Your task to perform on an android device: Clear all items from cart on amazon.com. Search for "beats solo 3" on amazon.com, select the first entry, and add it to the cart. Image 0: 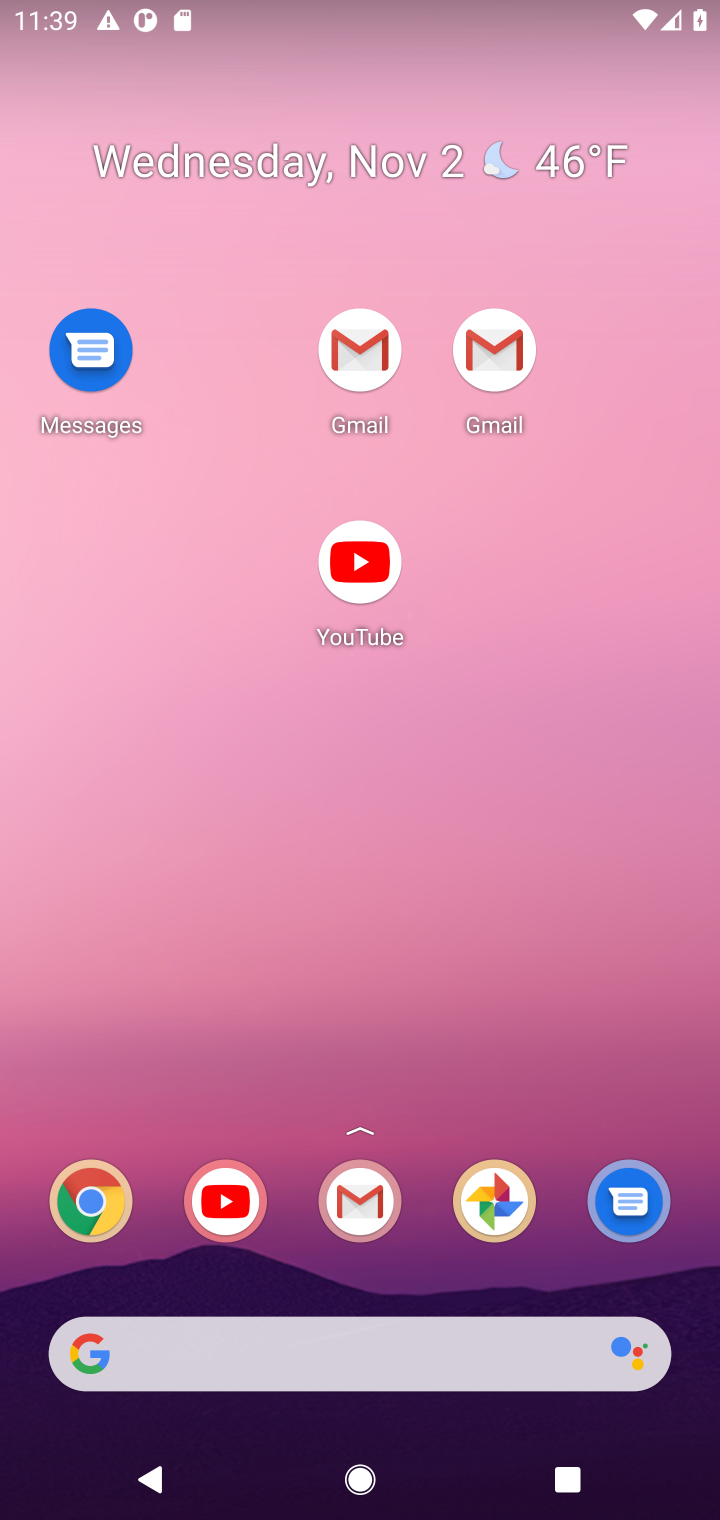
Step 0: drag from (437, 1266) to (437, 201)
Your task to perform on an android device: Clear all items from cart on amazon.com. Search for "beats solo 3" on amazon.com, select the first entry, and add it to the cart. Image 1: 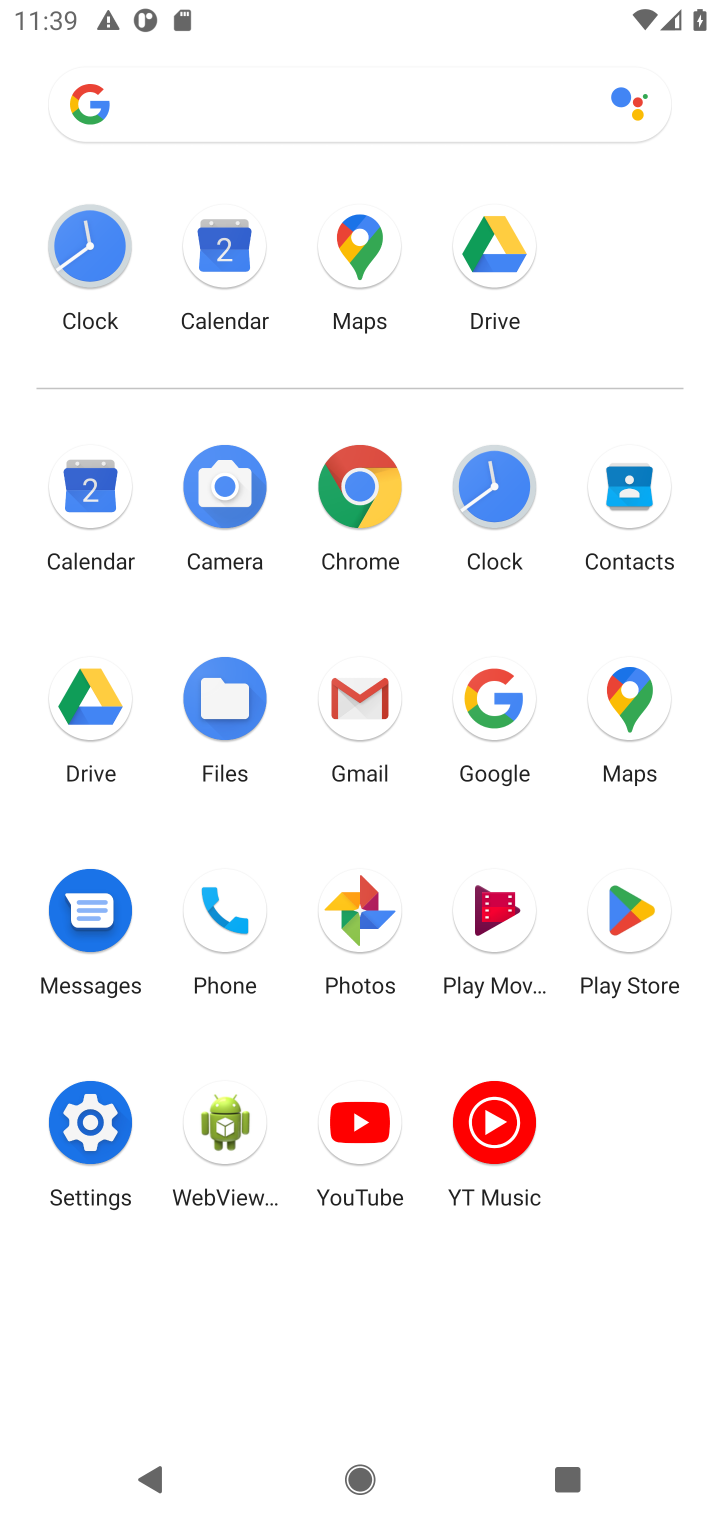
Step 1: click (361, 496)
Your task to perform on an android device: Clear all items from cart on amazon.com. Search for "beats solo 3" on amazon.com, select the first entry, and add it to the cart. Image 2: 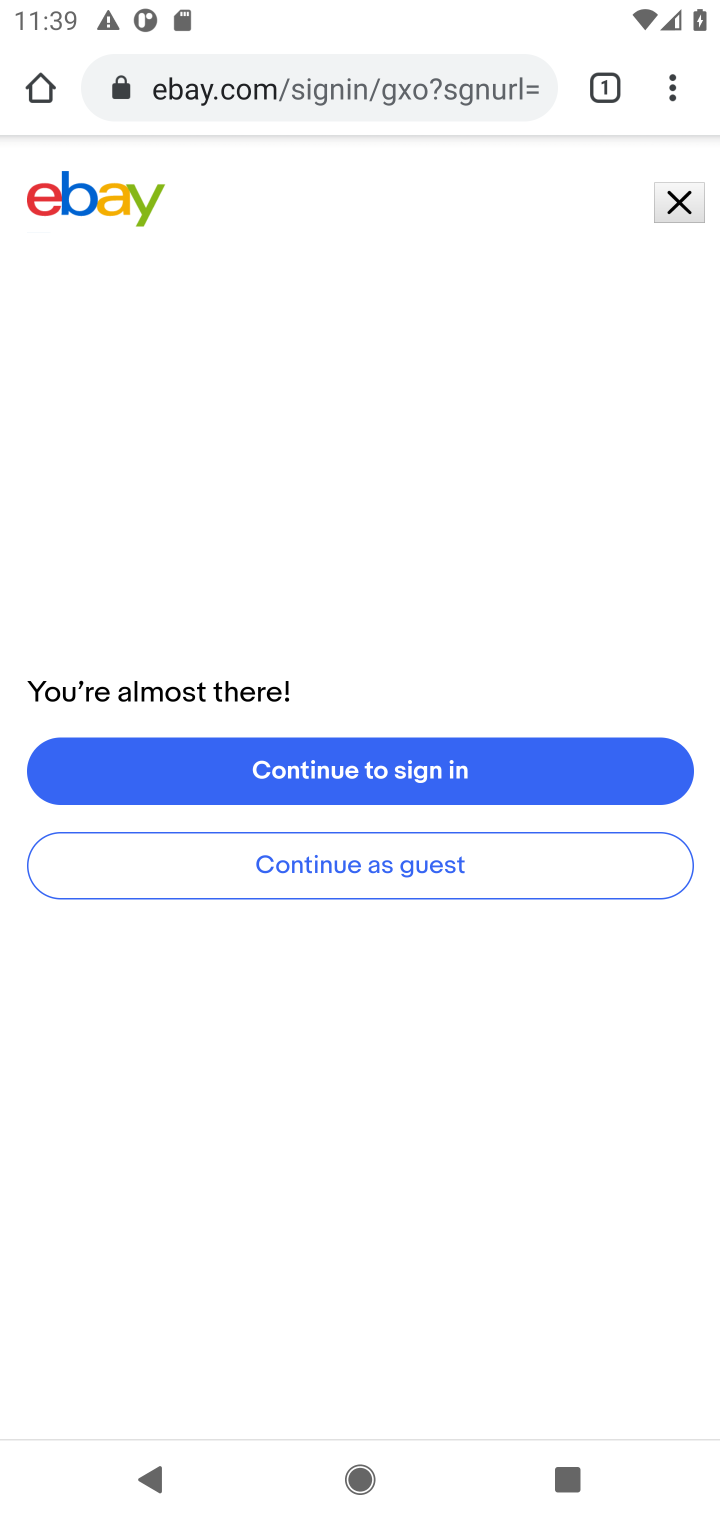
Step 2: click (355, 87)
Your task to perform on an android device: Clear all items from cart on amazon.com. Search for "beats solo 3" on amazon.com, select the first entry, and add it to the cart. Image 3: 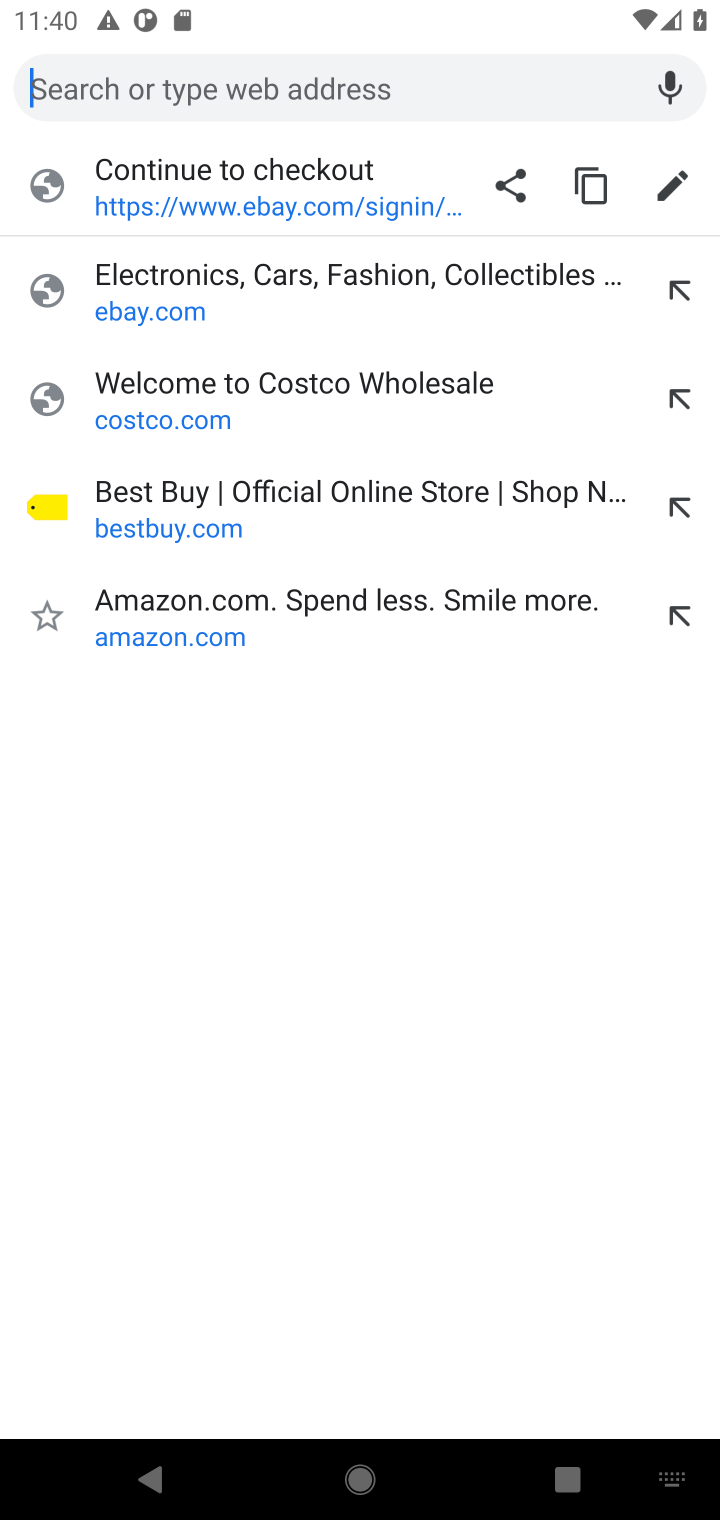
Step 3: type "amazon.com"
Your task to perform on an android device: Clear all items from cart on amazon.com. Search for "beats solo 3" on amazon.com, select the first entry, and add it to the cart. Image 4: 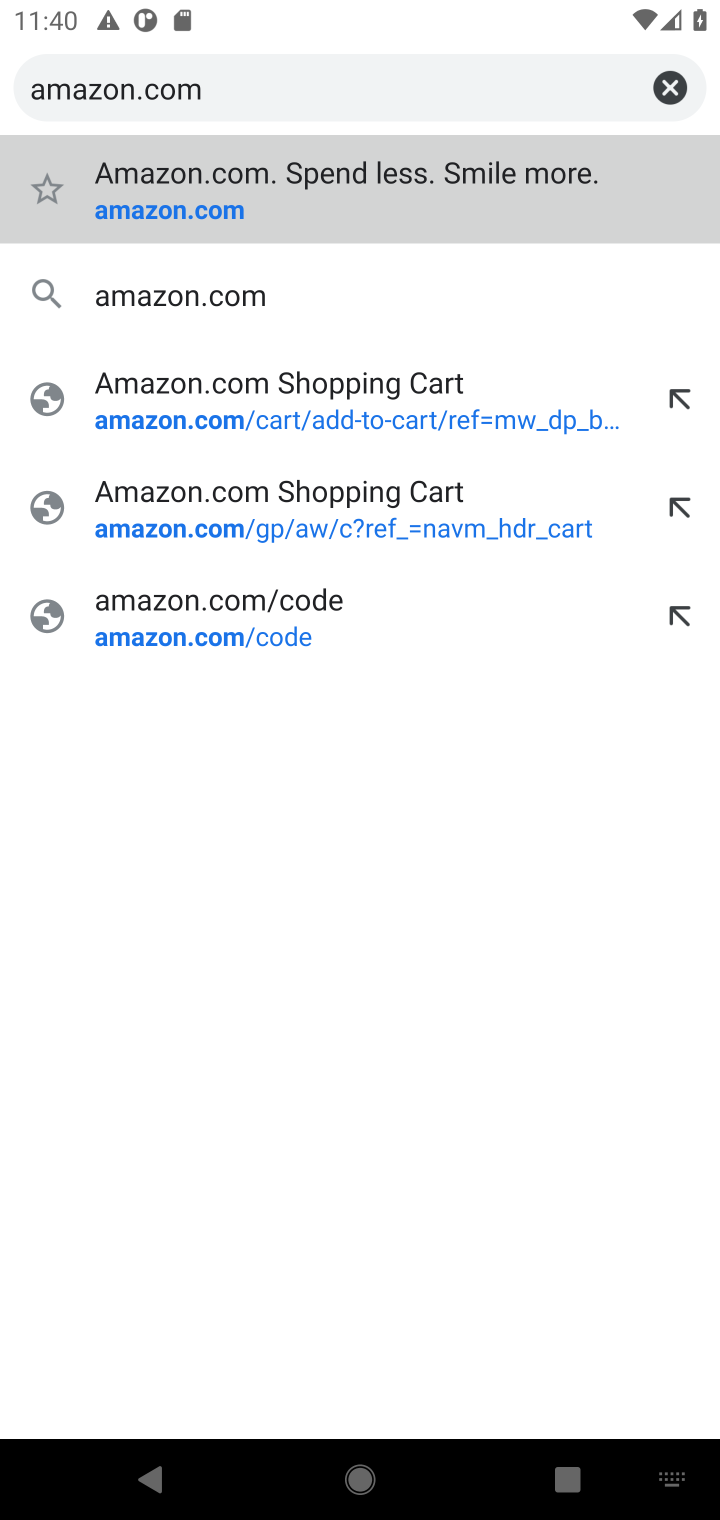
Step 4: press enter
Your task to perform on an android device: Clear all items from cart on amazon.com. Search for "beats solo 3" on amazon.com, select the first entry, and add it to the cart. Image 5: 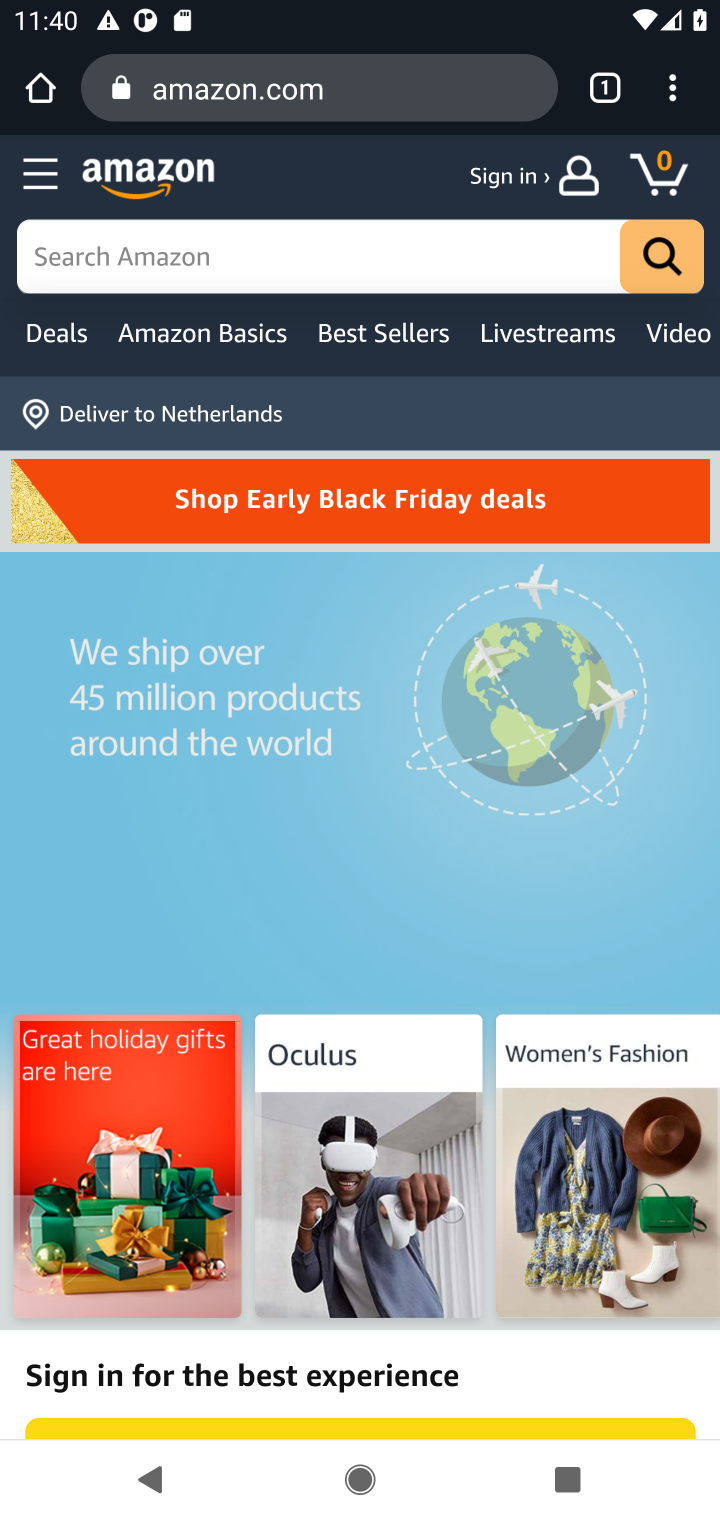
Step 5: click (654, 152)
Your task to perform on an android device: Clear all items from cart on amazon.com. Search for "beats solo 3" on amazon.com, select the first entry, and add it to the cart. Image 6: 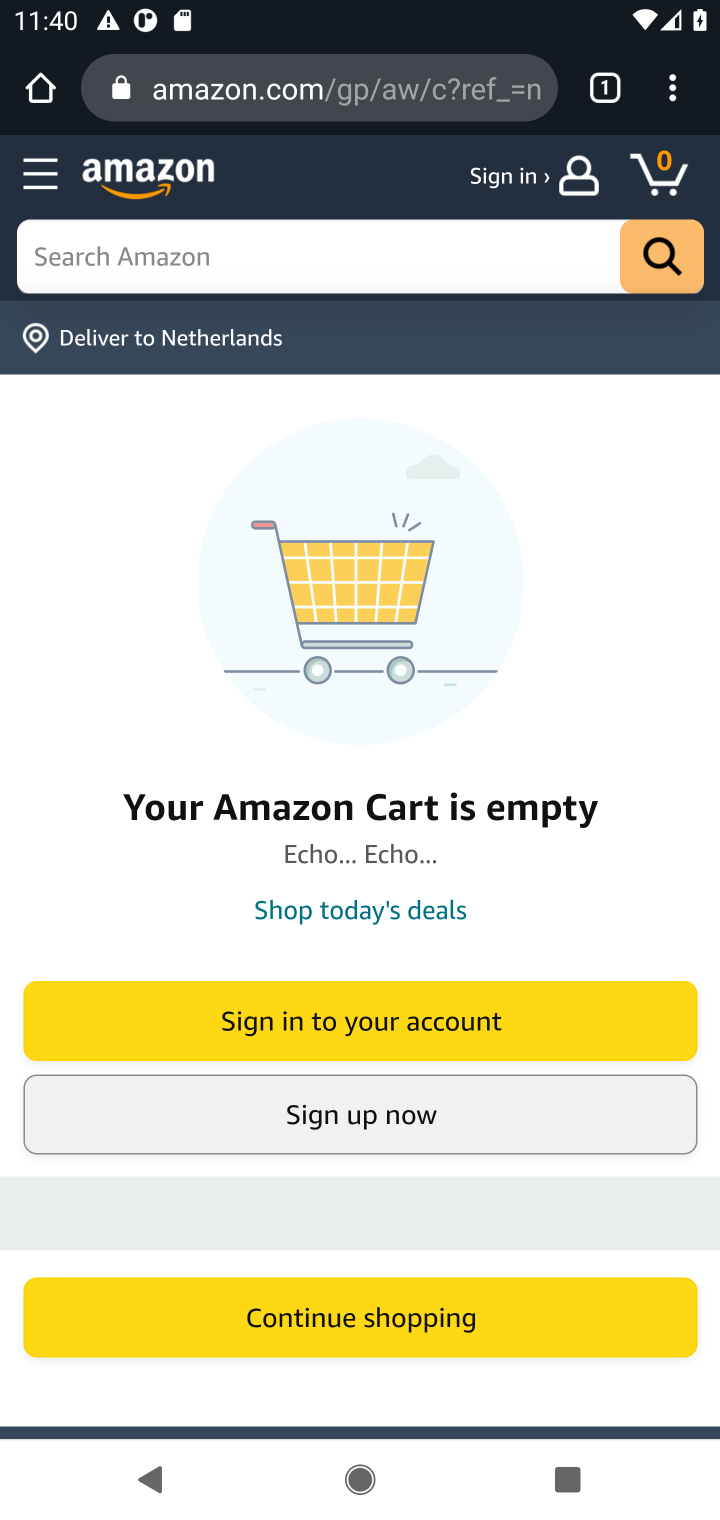
Step 6: click (306, 254)
Your task to perform on an android device: Clear all items from cart on amazon.com. Search for "beats solo 3" on amazon.com, select the first entry, and add it to the cart. Image 7: 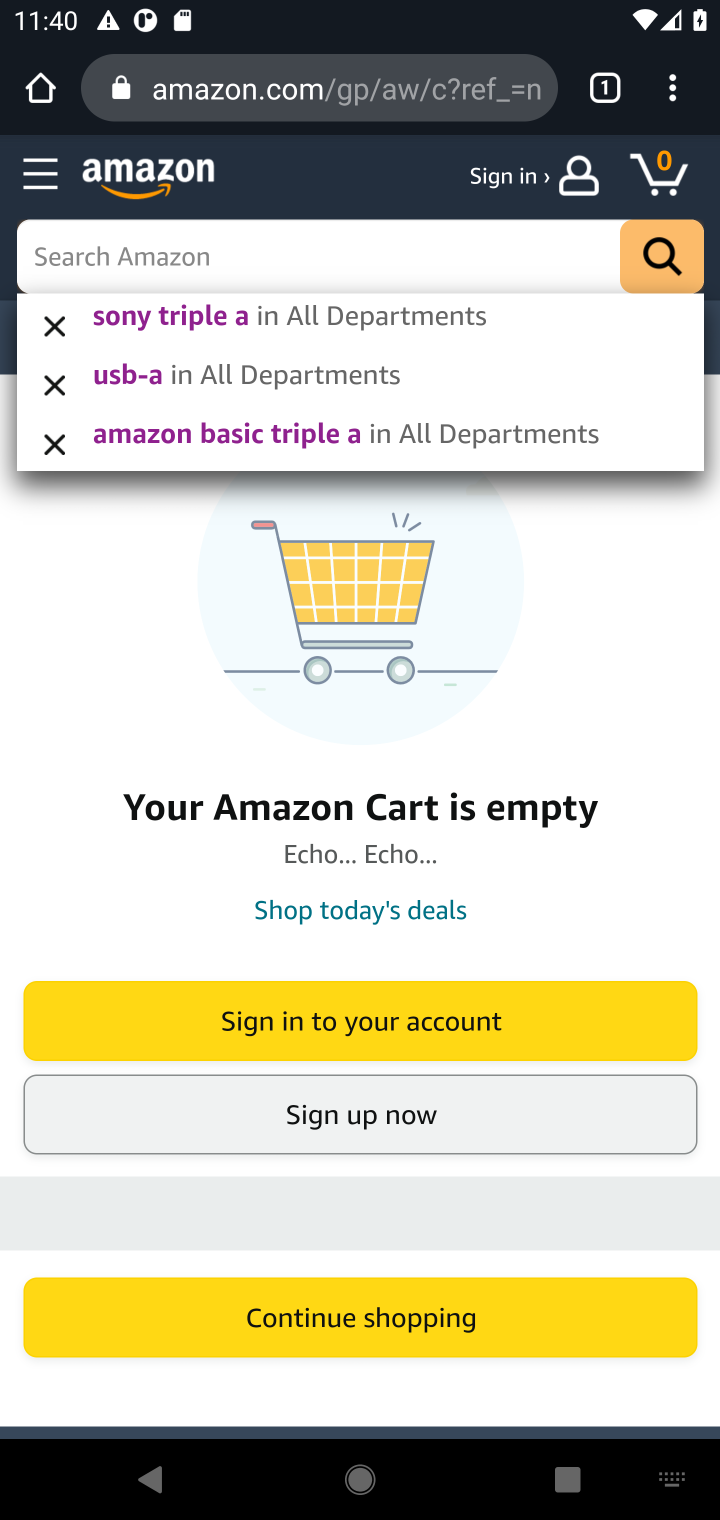
Step 7: type "beats solo 3"
Your task to perform on an android device: Clear all items from cart on amazon.com. Search for "beats solo 3" on amazon.com, select the first entry, and add it to the cart. Image 8: 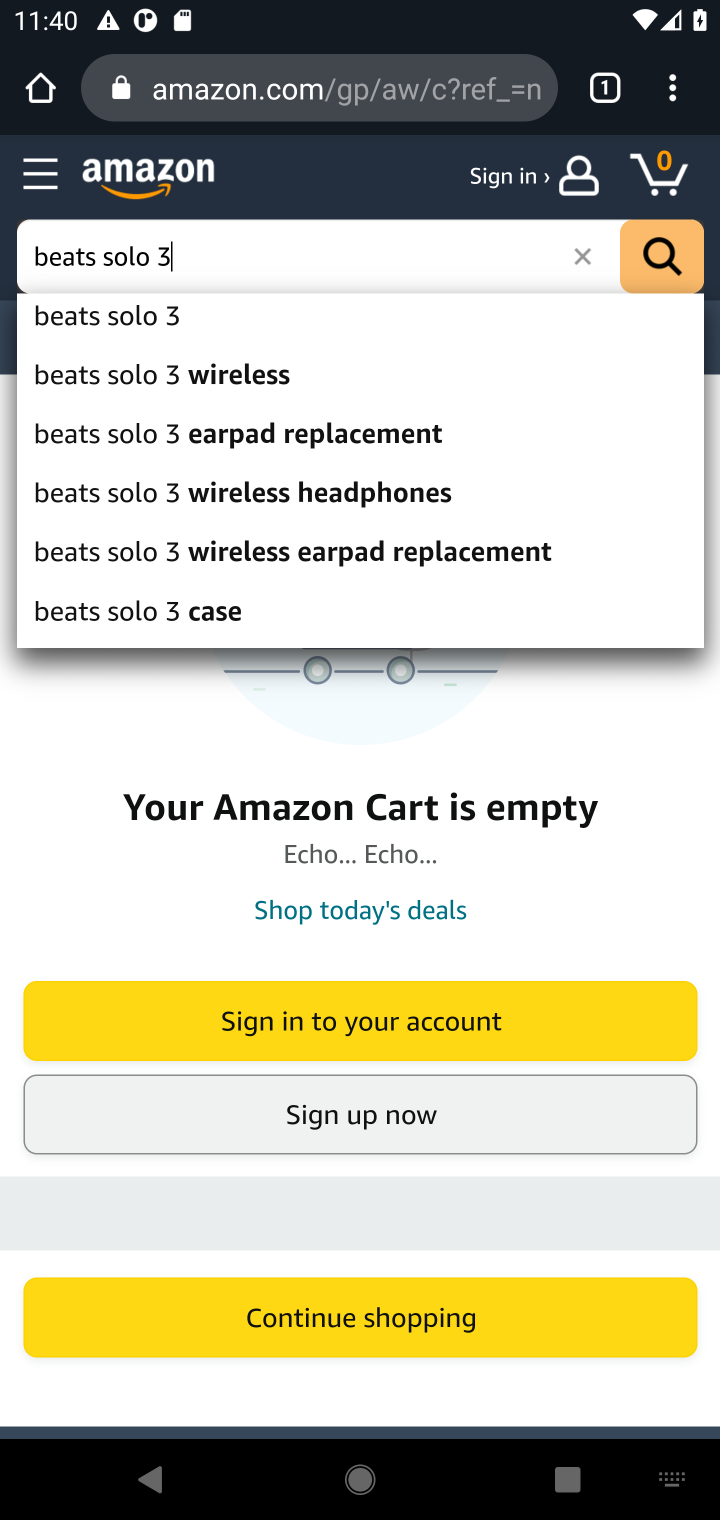
Step 8: press enter
Your task to perform on an android device: Clear all items from cart on amazon.com. Search for "beats solo 3" on amazon.com, select the first entry, and add it to the cart. Image 9: 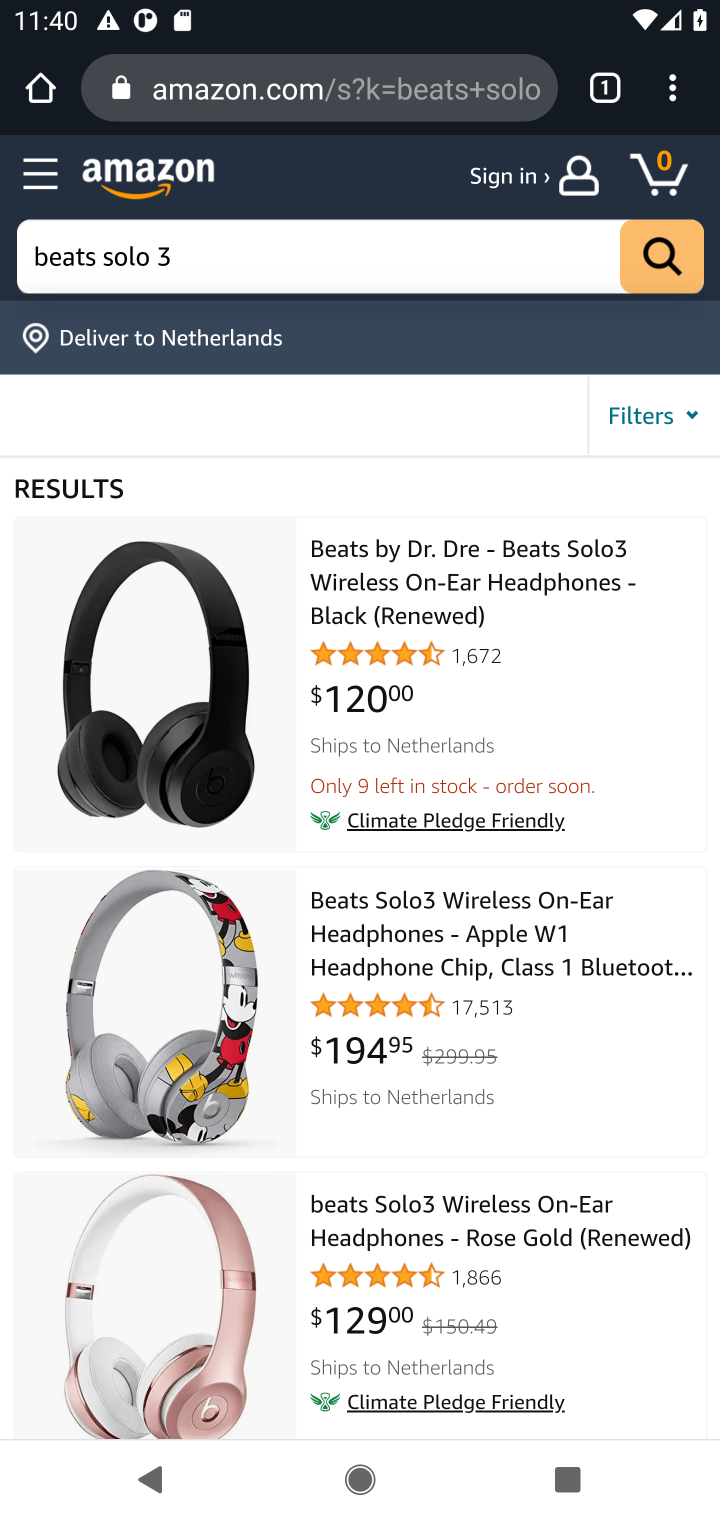
Step 9: click (355, 622)
Your task to perform on an android device: Clear all items from cart on amazon.com. Search for "beats solo 3" on amazon.com, select the first entry, and add it to the cart. Image 10: 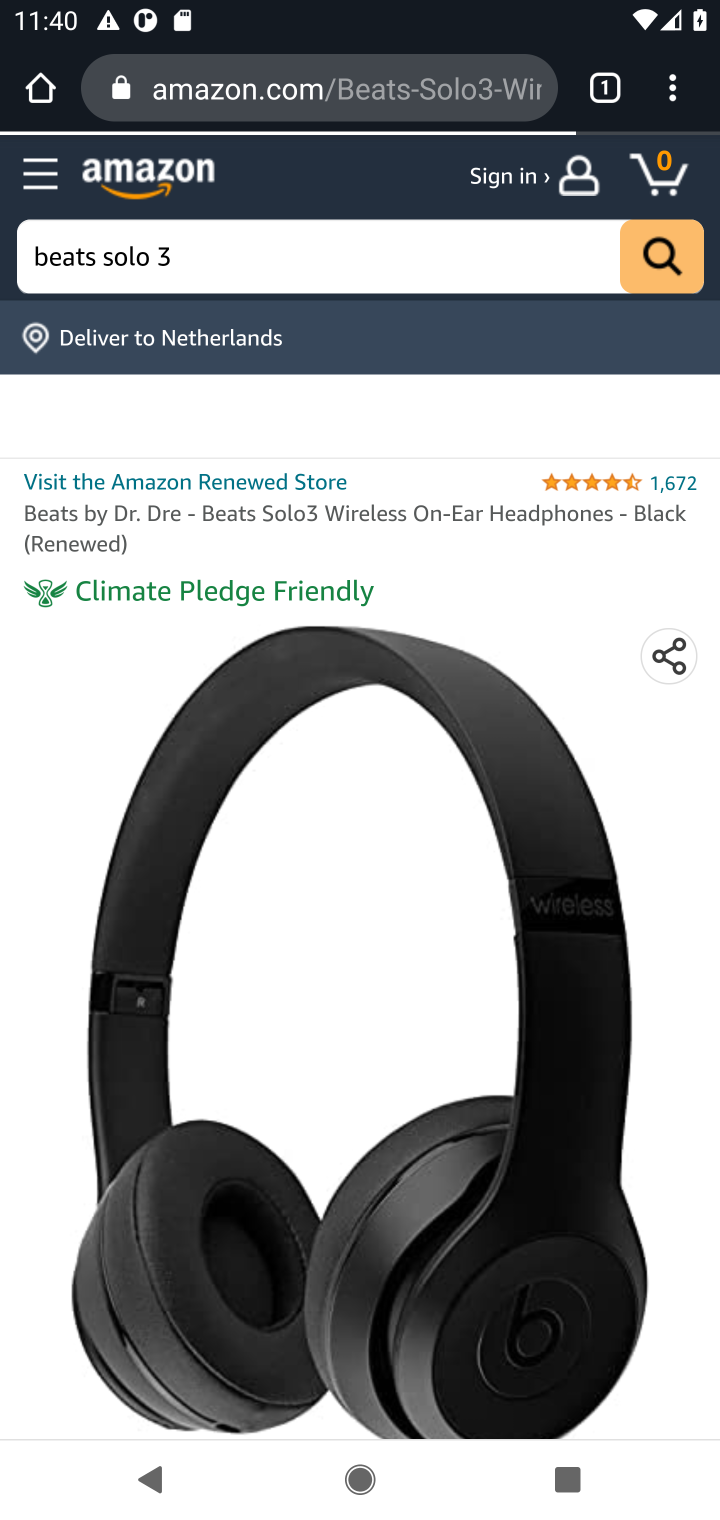
Step 10: drag from (509, 1053) to (448, 311)
Your task to perform on an android device: Clear all items from cart on amazon.com. Search for "beats solo 3" on amazon.com, select the first entry, and add it to the cart. Image 11: 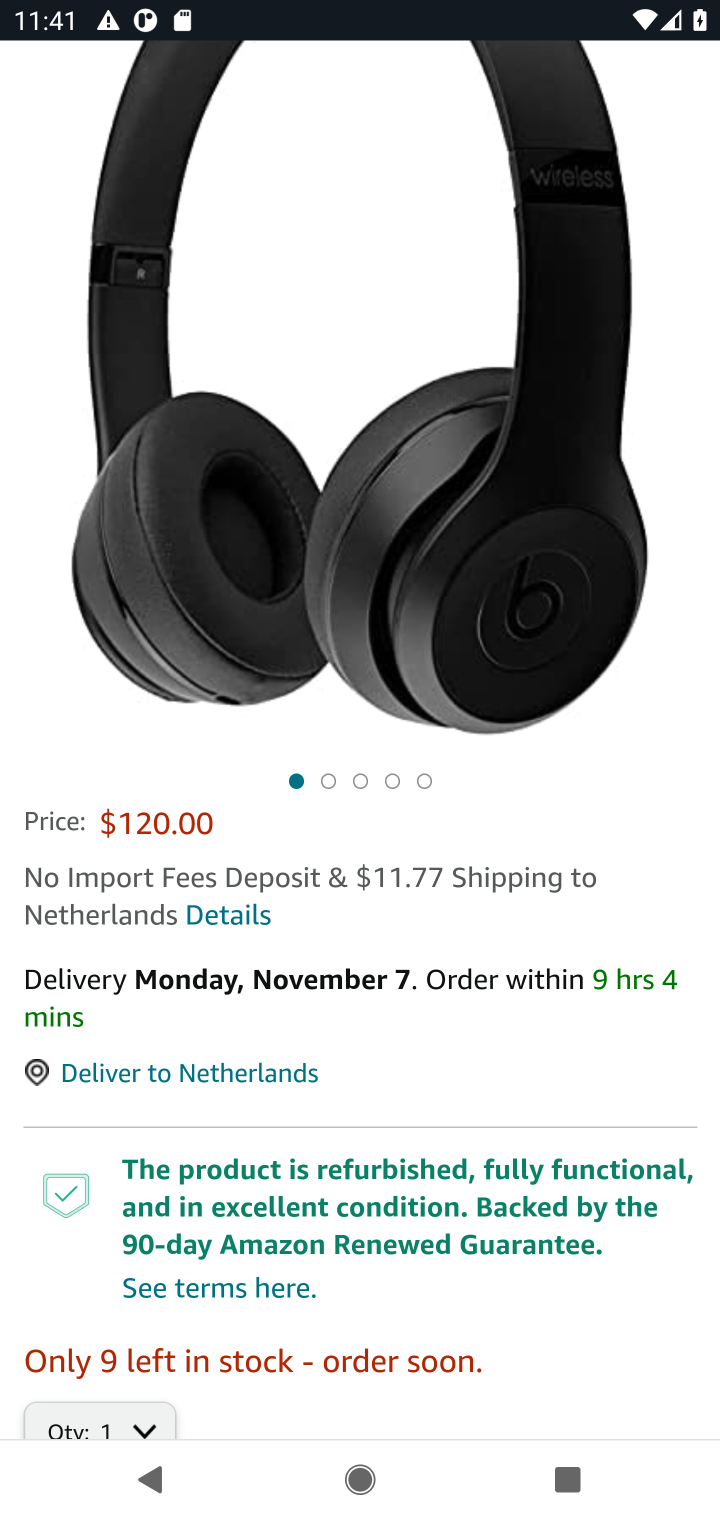
Step 11: drag from (479, 1221) to (406, 460)
Your task to perform on an android device: Clear all items from cart on amazon.com. Search for "beats solo 3" on amazon.com, select the first entry, and add it to the cart. Image 12: 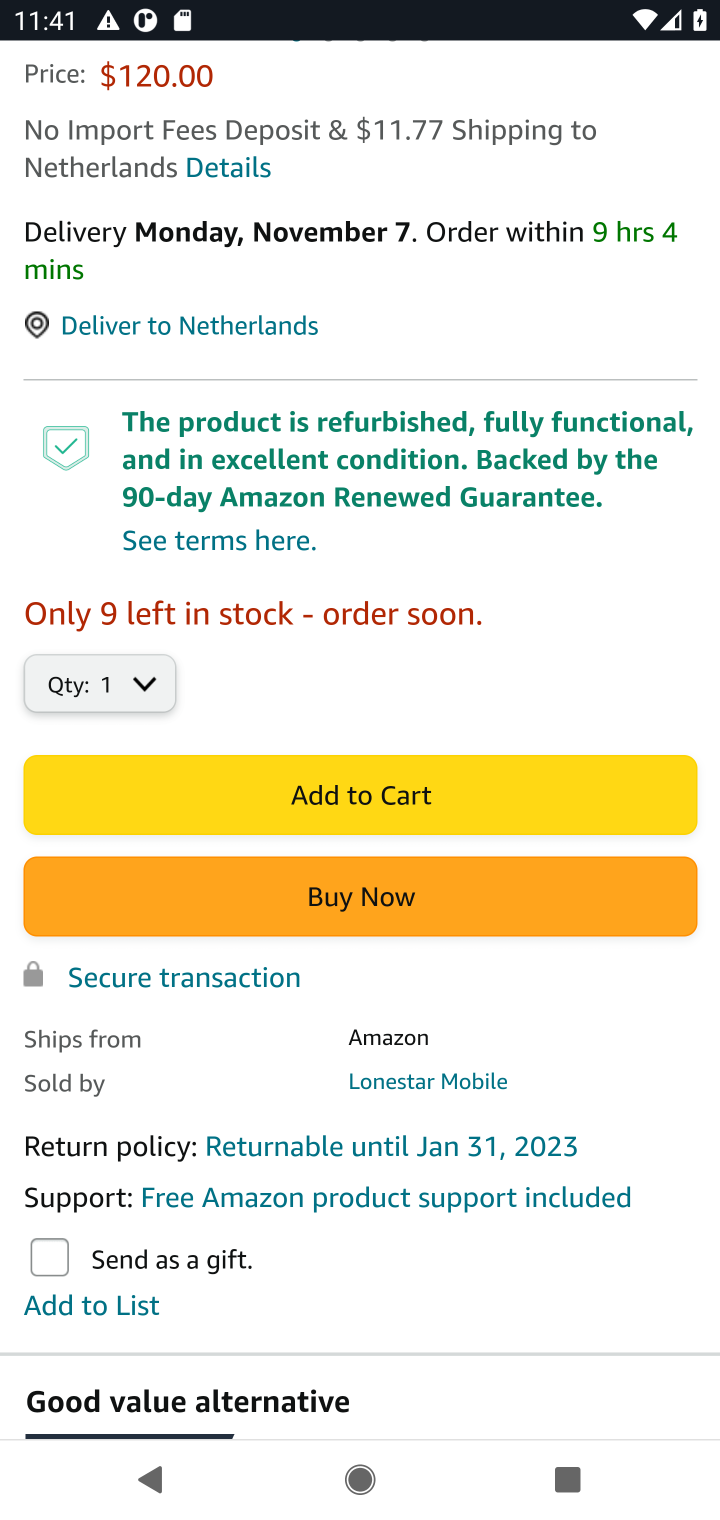
Step 12: click (421, 797)
Your task to perform on an android device: Clear all items from cart on amazon.com. Search for "beats solo 3" on amazon.com, select the first entry, and add it to the cart. Image 13: 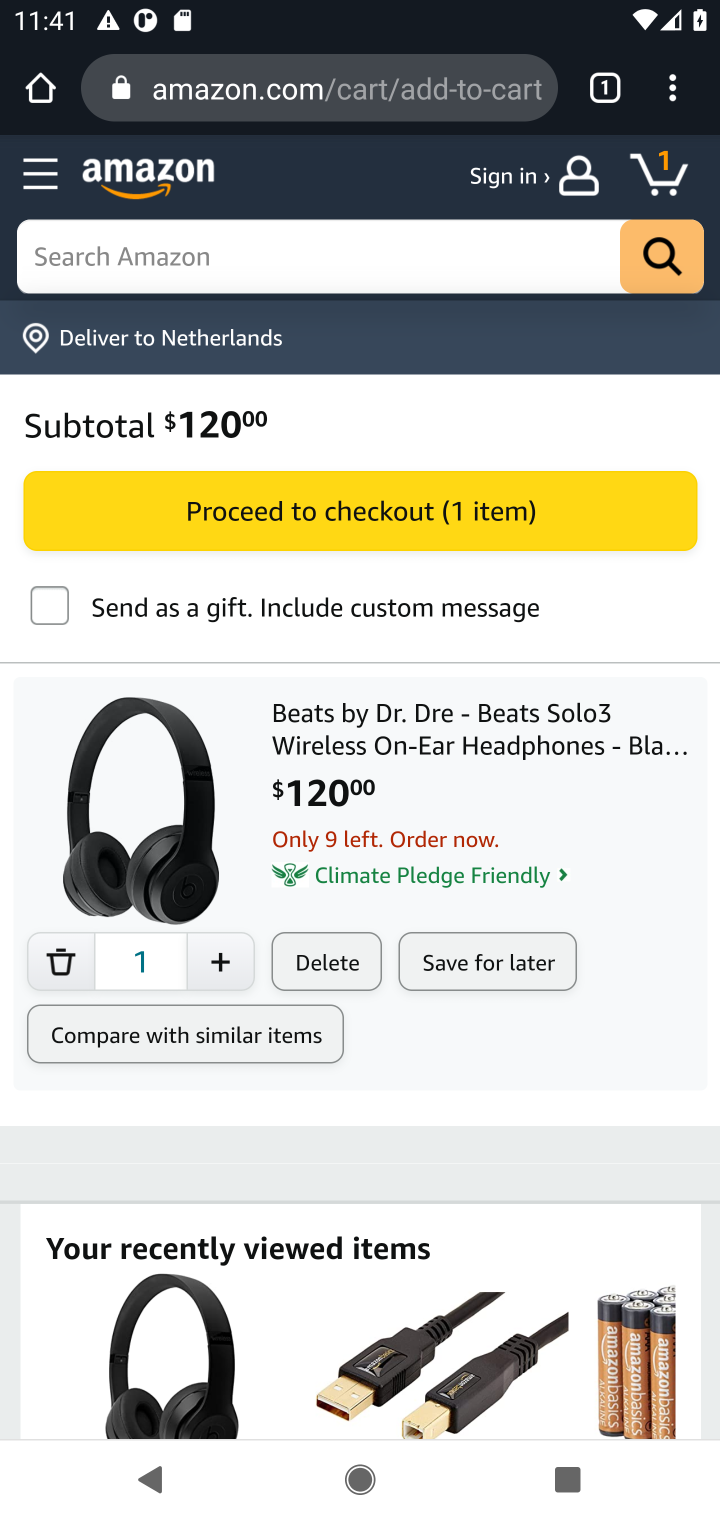
Step 13: task complete